Your task to perform on an android device: Open Youtube and go to the subscriptions tab Image 0: 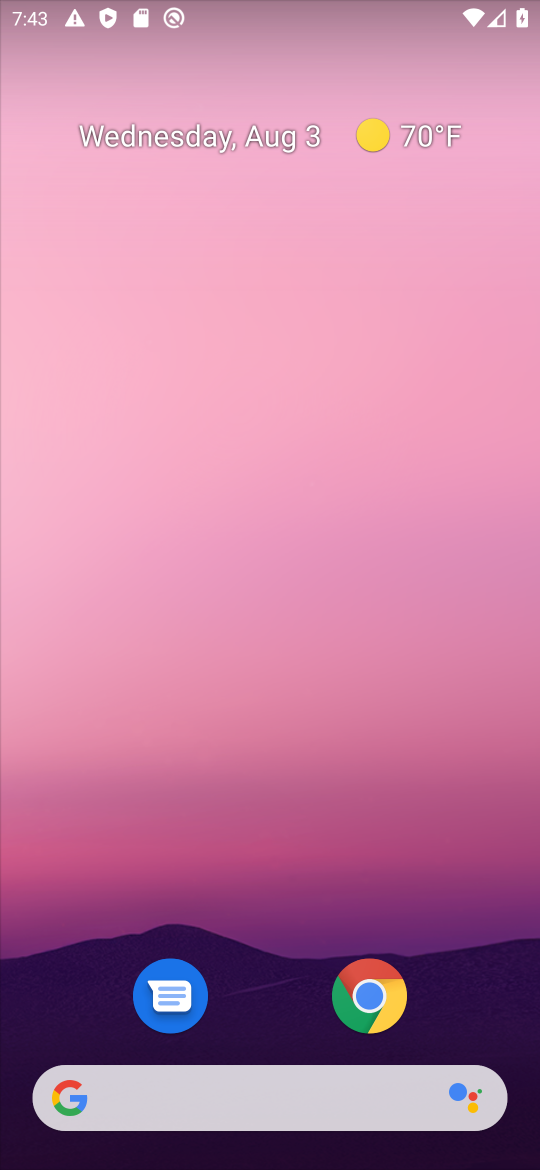
Step 0: drag from (280, 937) to (236, 0)
Your task to perform on an android device: Open Youtube and go to the subscriptions tab Image 1: 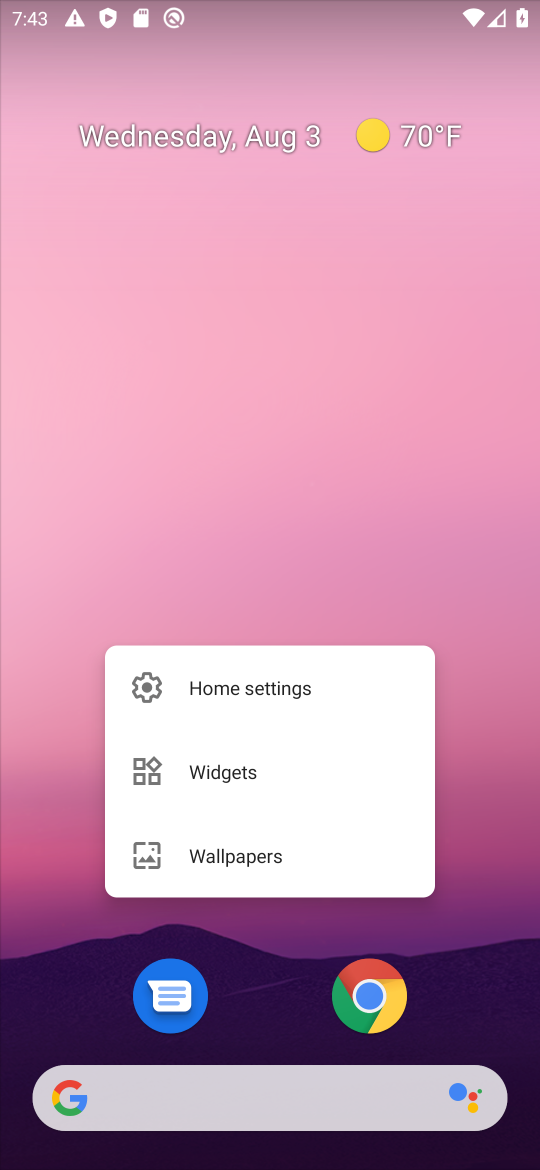
Step 1: click (400, 374)
Your task to perform on an android device: Open Youtube and go to the subscriptions tab Image 2: 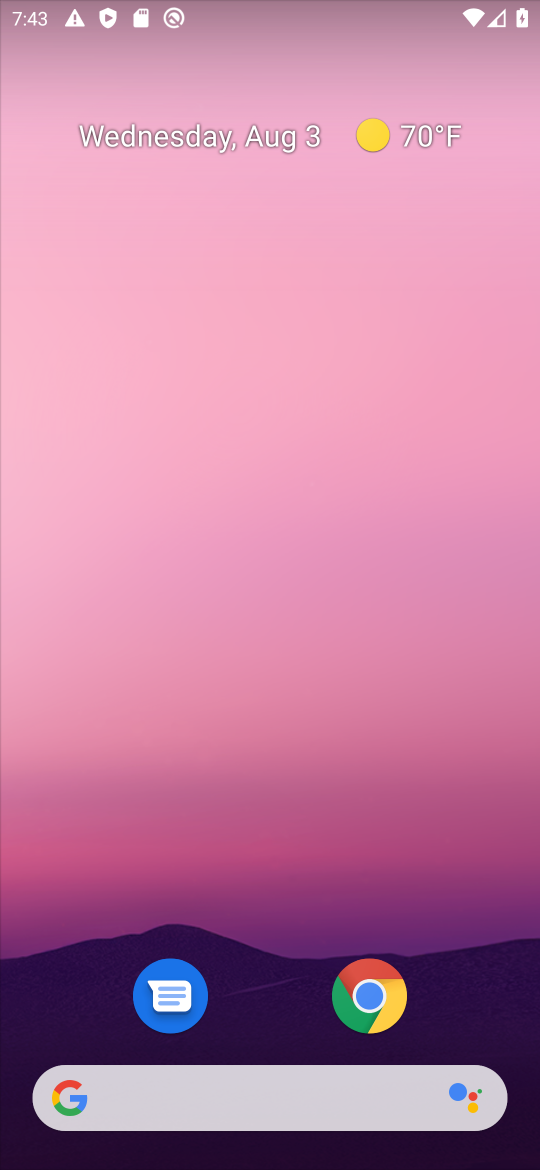
Step 2: drag from (292, 876) to (222, 0)
Your task to perform on an android device: Open Youtube and go to the subscriptions tab Image 3: 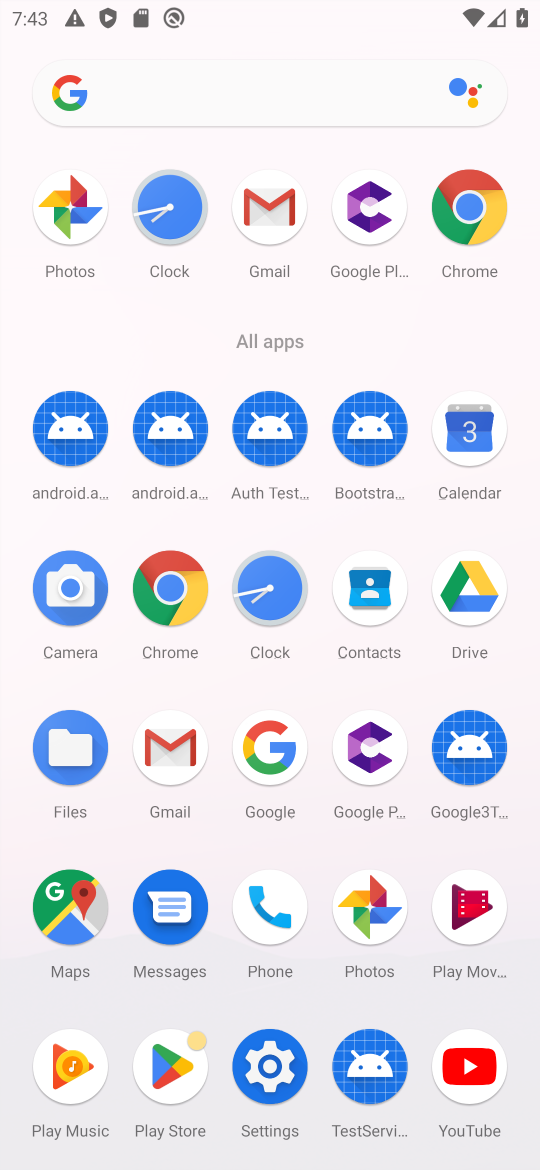
Step 3: click (481, 1050)
Your task to perform on an android device: Open Youtube and go to the subscriptions tab Image 4: 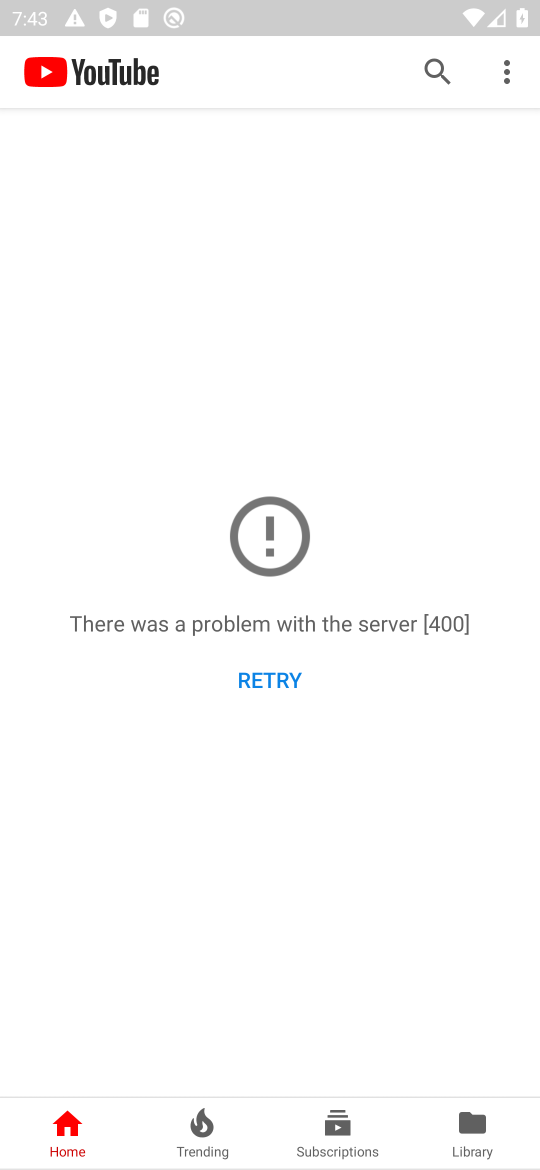
Step 4: click (332, 1131)
Your task to perform on an android device: Open Youtube and go to the subscriptions tab Image 5: 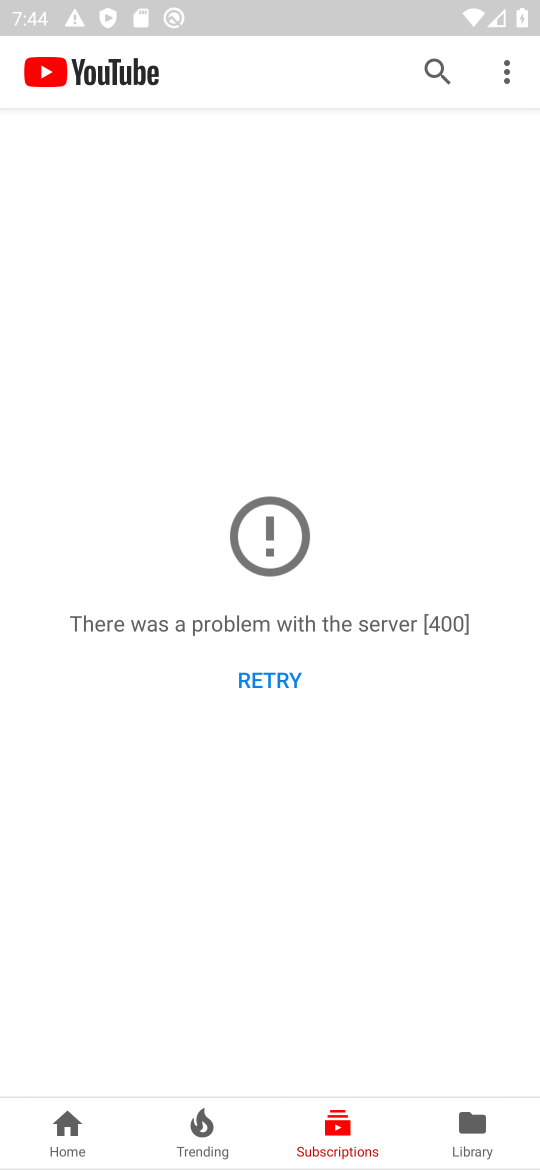
Step 5: task complete